Your task to perform on an android device: Go to Yahoo.com Image 0: 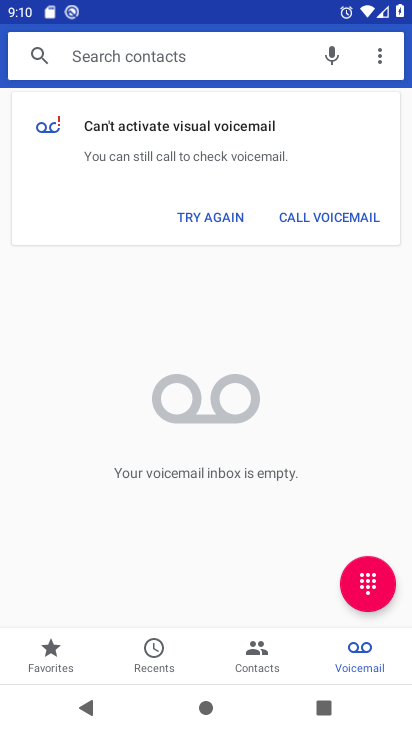
Step 0: press home button
Your task to perform on an android device: Go to Yahoo.com Image 1: 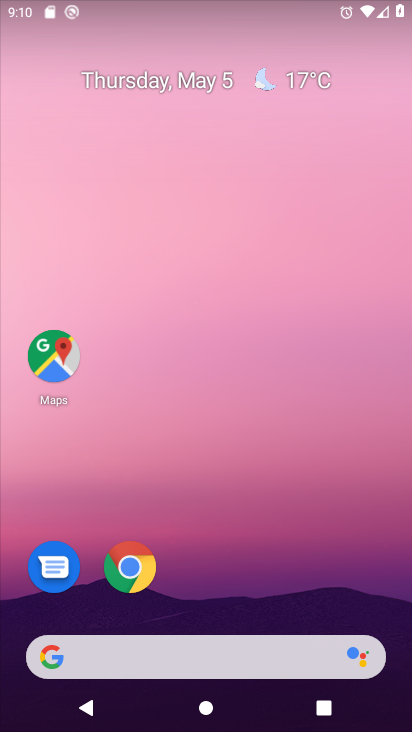
Step 1: drag from (224, 580) to (214, 62)
Your task to perform on an android device: Go to Yahoo.com Image 2: 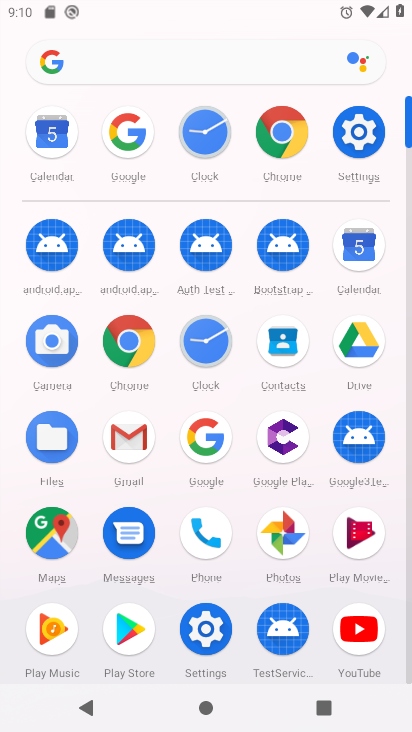
Step 2: click (209, 443)
Your task to perform on an android device: Go to Yahoo.com Image 3: 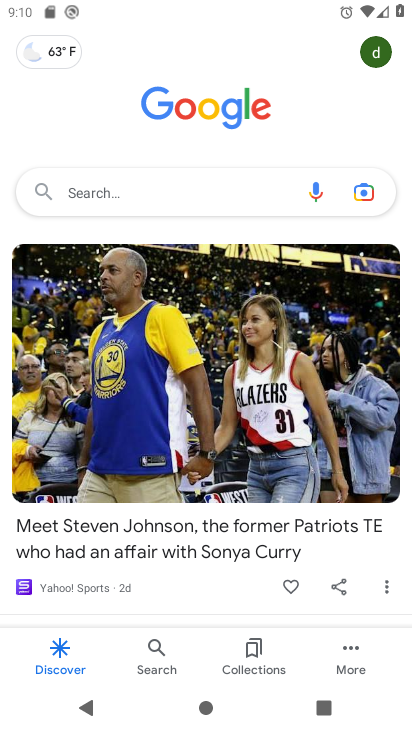
Step 3: click (207, 193)
Your task to perform on an android device: Go to Yahoo.com Image 4: 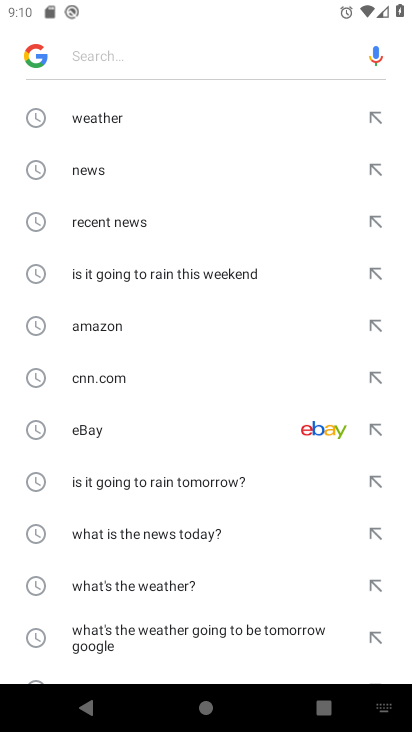
Step 4: type "yahoo.com"
Your task to perform on an android device: Go to Yahoo.com Image 5: 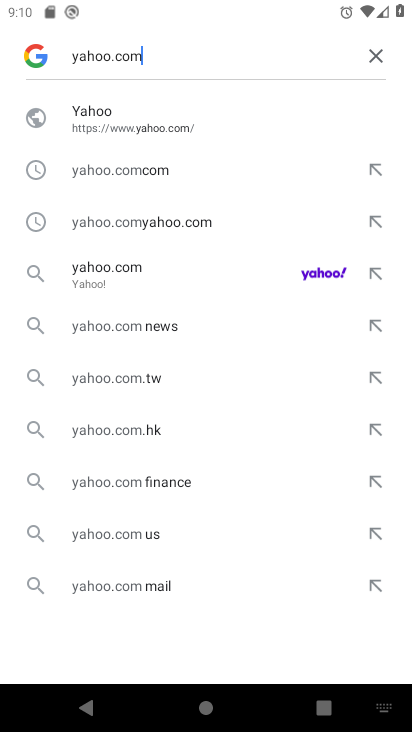
Step 5: click (278, 279)
Your task to perform on an android device: Go to Yahoo.com Image 6: 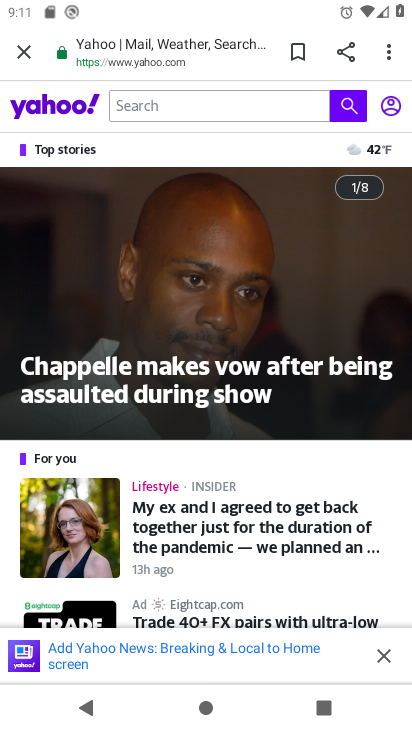
Step 6: task complete